Your task to perform on an android device: turn on airplane mode Image 0: 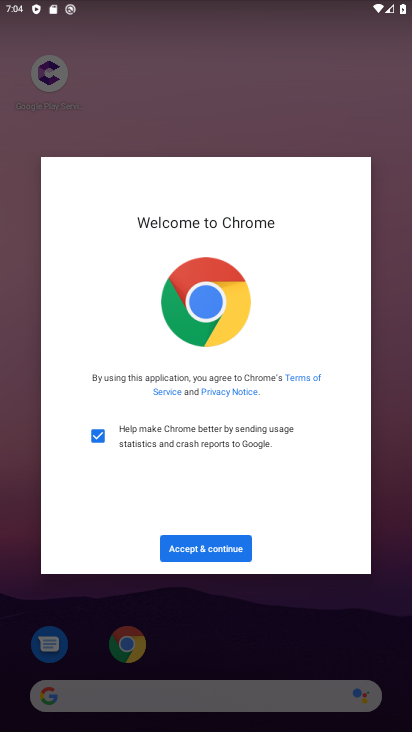
Step 0: drag from (346, 2) to (323, 456)
Your task to perform on an android device: turn on airplane mode Image 1: 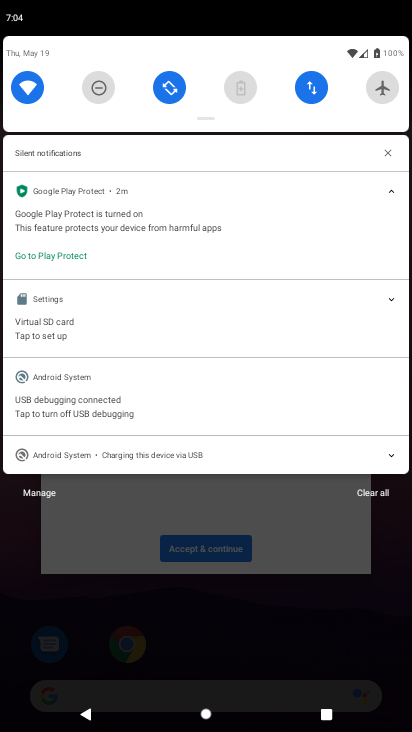
Step 1: click (383, 96)
Your task to perform on an android device: turn on airplane mode Image 2: 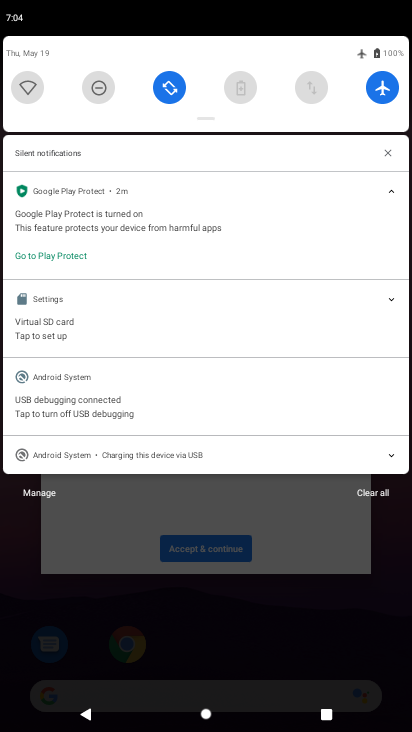
Step 2: task complete